Your task to perform on an android device: change the clock display to analog Image 0: 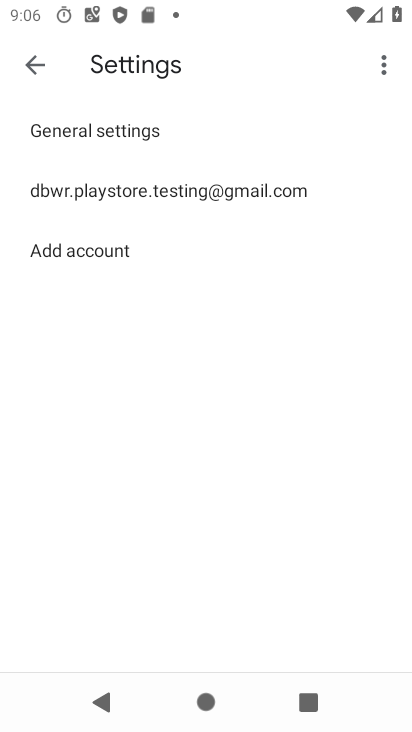
Step 0: press home button
Your task to perform on an android device: change the clock display to analog Image 1: 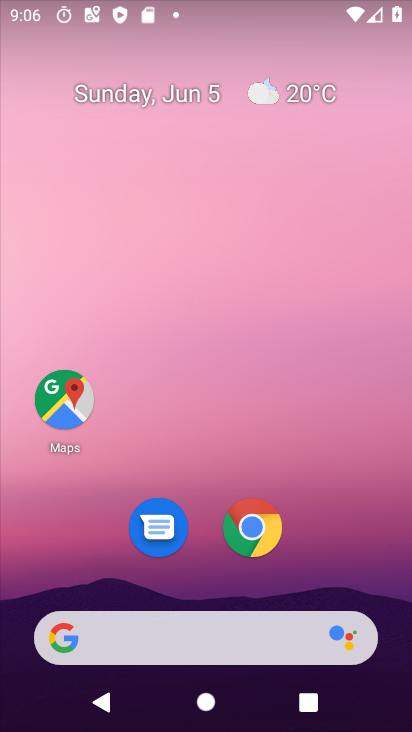
Step 1: drag from (338, 573) to (343, 121)
Your task to perform on an android device: change the clock display to analog Image 2: 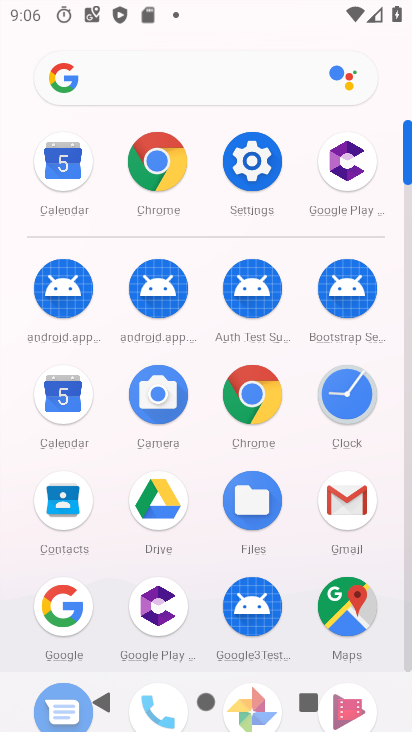
Step 2: click (364, 385)
Your task to perform on an android device: change the clock display to analog Image 3: 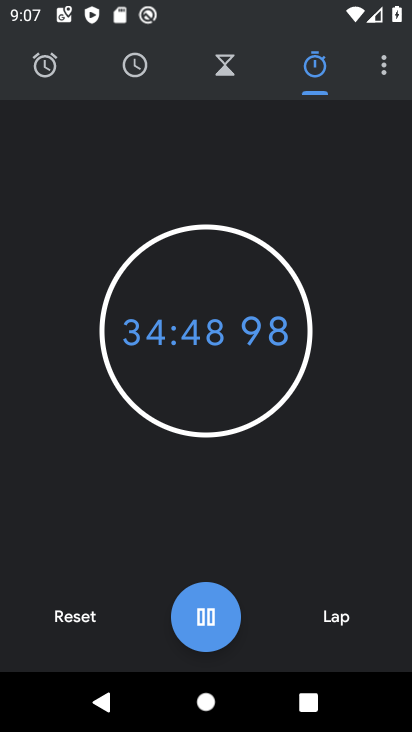
Step 3: click (384, 86)
Your task to perform on an android device: change the clock display to analog Image 4: 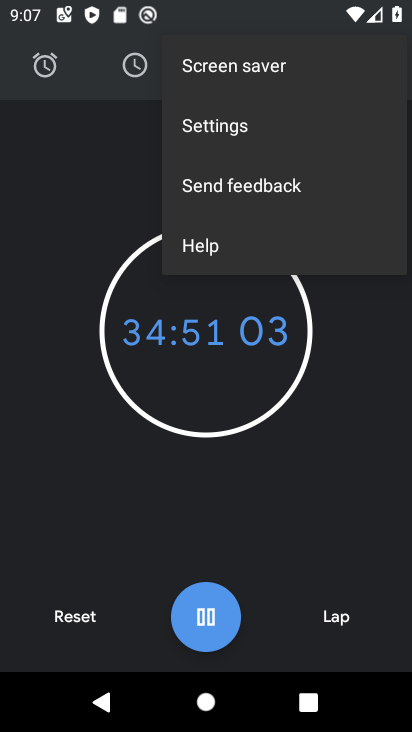
Step 4: click (181, 138)
Your task to perform on an android device: change the clock display to analog Image 5: 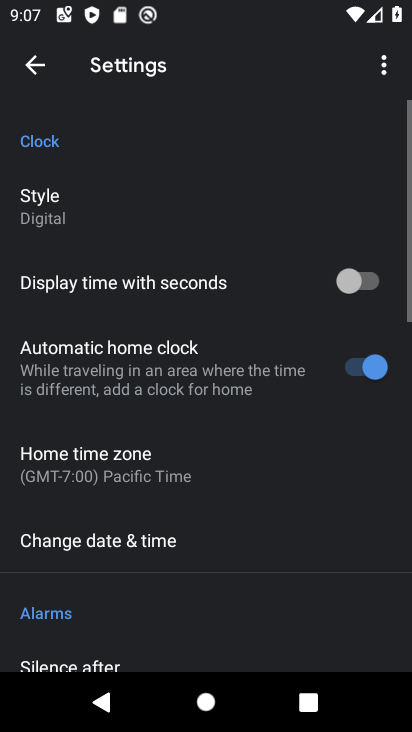
Step 5: click (42, 203)
Your task to perform on an android device: change the clock display to analog Image 6: 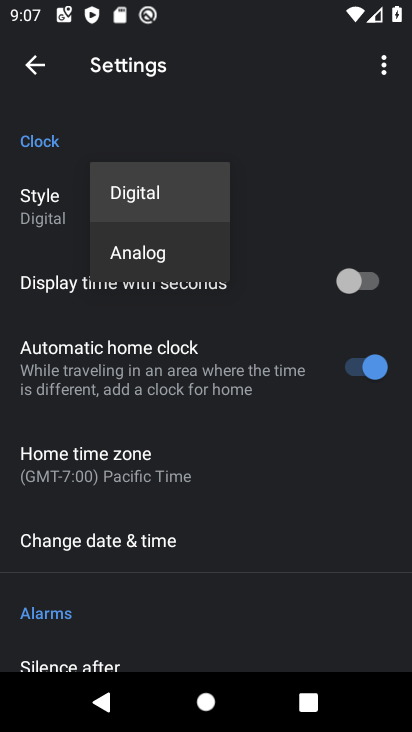
Step 6: click (182, 258)
Your task to perform on an android device: change the clock display to analog Image 7: 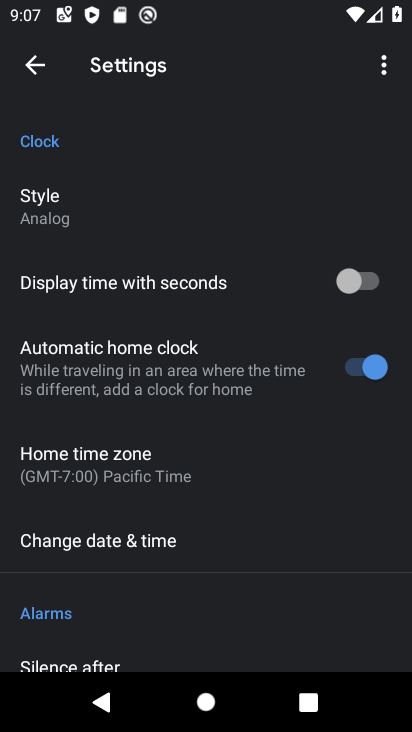
Step 7: task complete